Your task to perform on an android device: read, delete, or share a saved page in the chrome app Image 0: 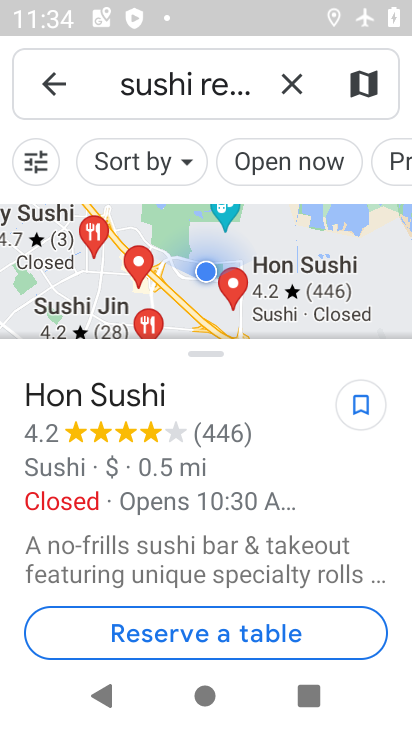
Step 0: press home button
Your task to perform on an android device: read, delete, or share a saved page in the chrome app Image 1: 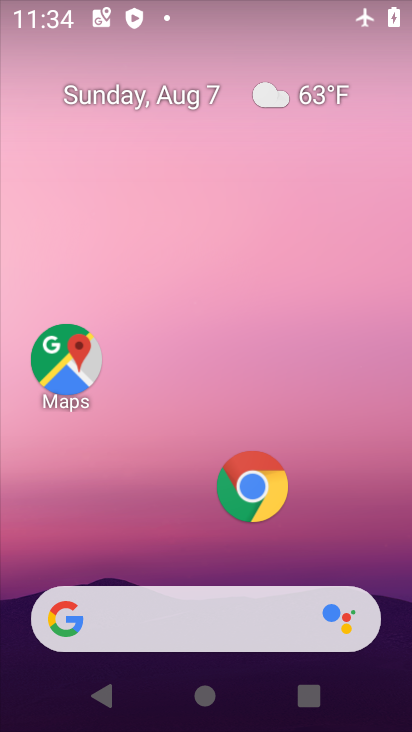
Step 1: click (245, 480)
Your task to perform on an android device: read, delete, or share a saved page in the chrome app Image 2: 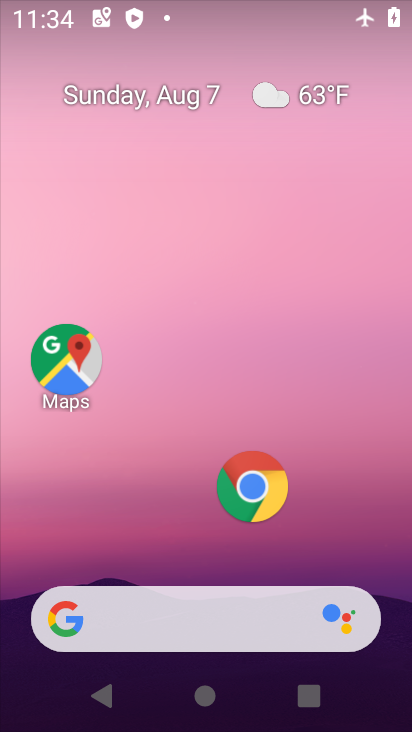
Step 2: click (245, 480)
Your task to perform on an android device: read, delete, or share a saved page in the chrome app Image 3: 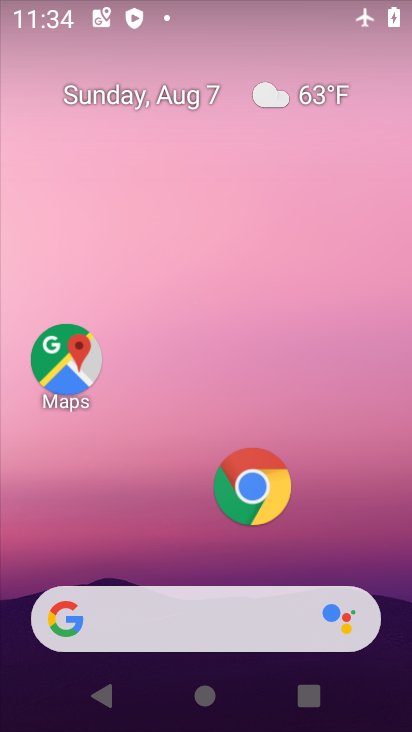
Step 3: click (245, 480)
Your task to perform on an android device: read, delete, or share a saved page in the chrome app Image 4: 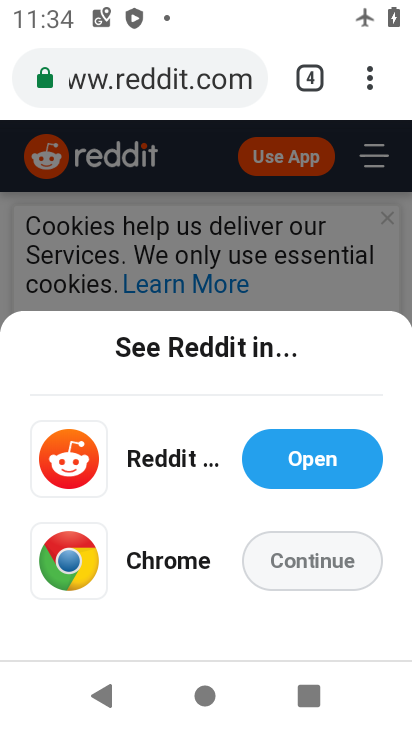
Step 4: click (363, 80)
Your task to perform on an android device: read, delete, or share a saved page in the chrome app Image 5: 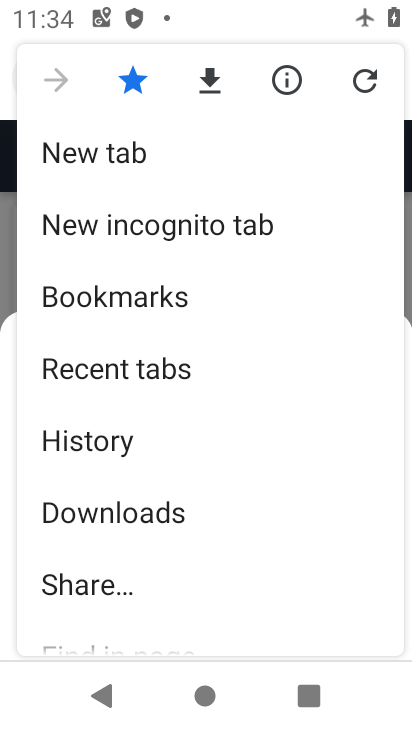
Step 5: drag from (184, 589) to (252, 41)
Your task to perform on an android device: read, delete, or share a saved page in the chrome app Image 6: 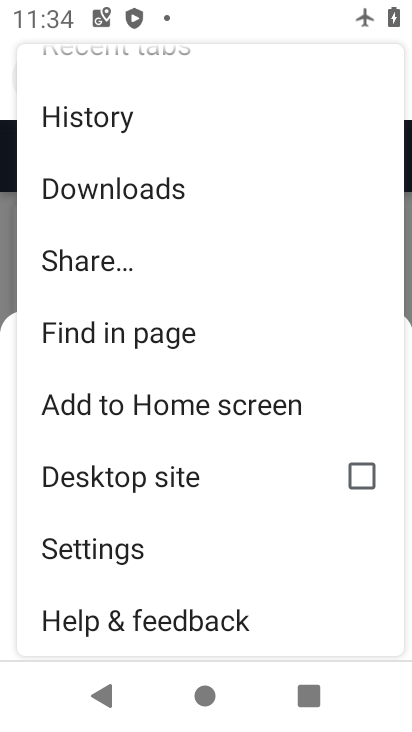
Step 6: click (146, 181)
Your task to perform on an android device: read, delete, or share a saved page in the chrome app Image 7: 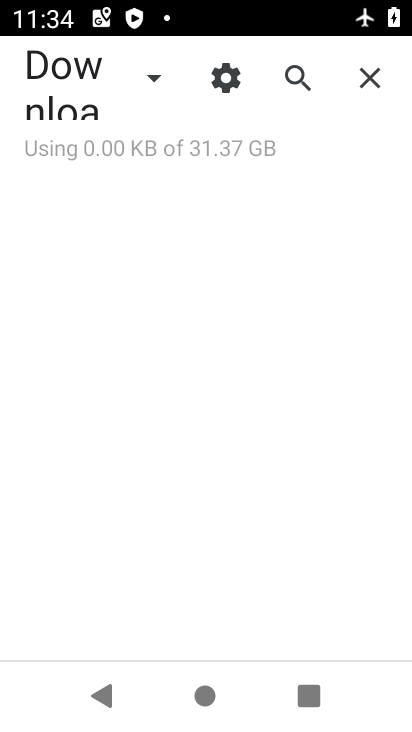
Step 7: task complete